Your task to perform on an android device: turn on priority inbox in the gmail app Image 0: 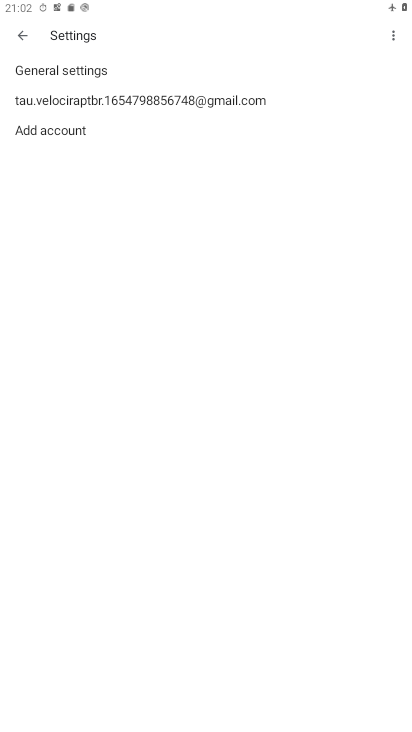
Step 0: press home button
Your task to perform on an android device: turn on priority inbox in the gmail app Image 1: 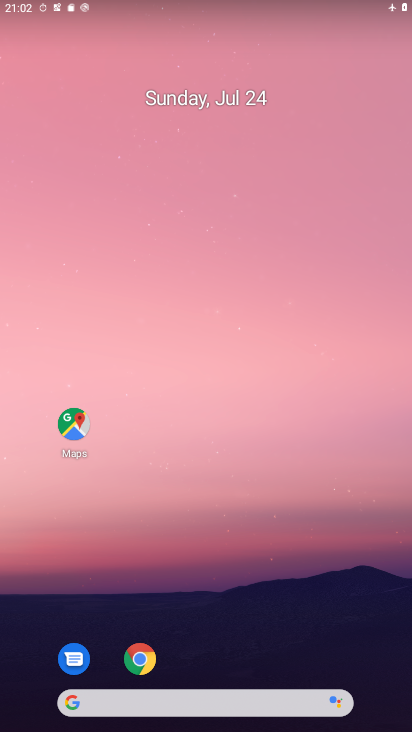
Step 1: drag from (242, 714) to (240, 240)
Your task to perform on an android device: turn on priority inbox in the gmail app Image 2: 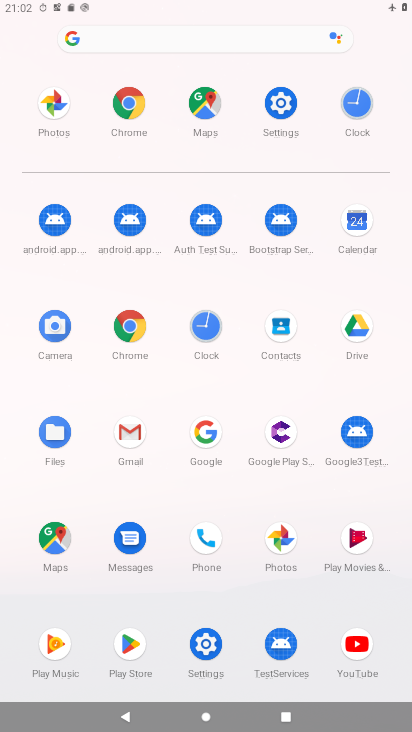
Step 2: click (119, 430)
Your task to perform on an android device: turn on priority inbox in the gmail app Image 3: 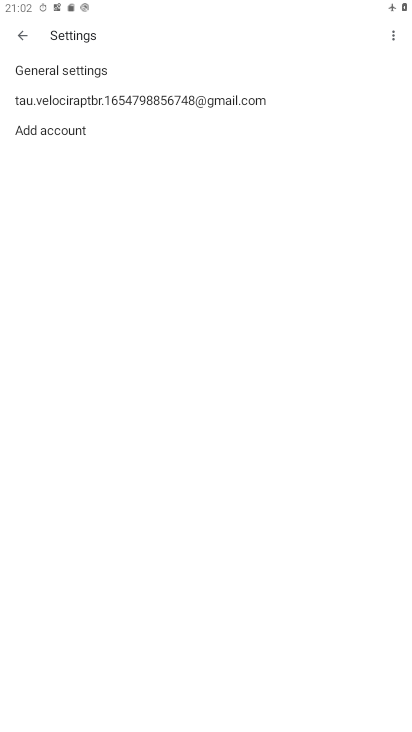
Step 3: click (102, 97)
Your task to perform on an android device: turn on priority inbox in the gmail app Image 4: 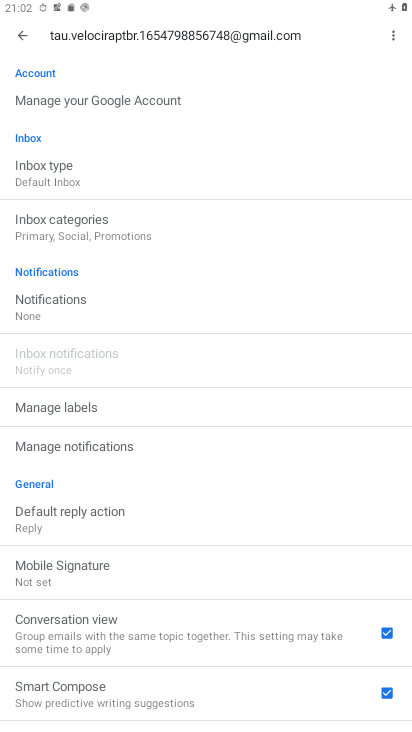
Step 4: click (53, 182)
Your task to perform on an android device: turn on priority inbox in the gmail app Image 5: 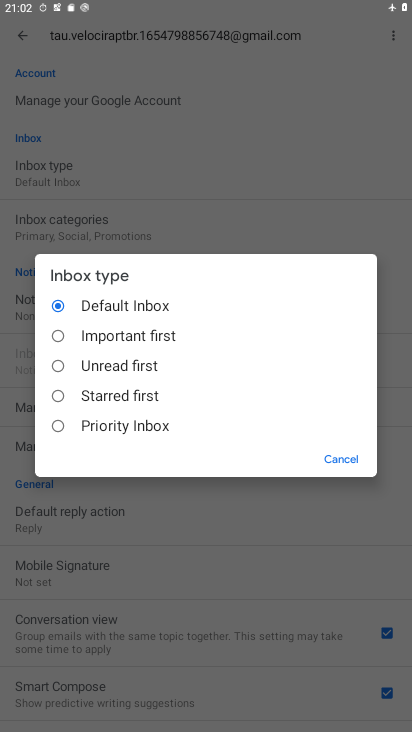
Step 5: click (59, 424)
Your task to perform on an android device: turn on priority inbox in the gmail app Image 6: 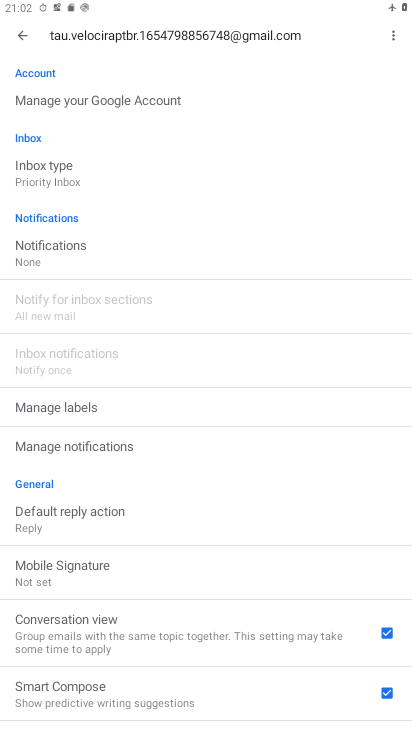
Step 6: task complete